Your task to perform on an android device: Open display settings Image 0: 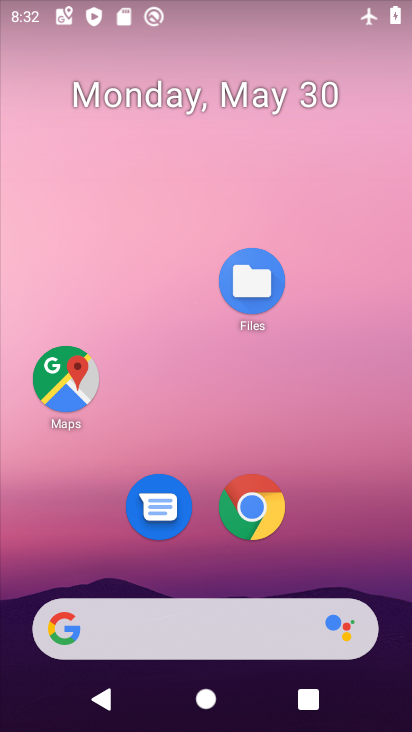
Step 0: drag from (201, 552) to (227, 174)
Your task to perform on an android device: Open display settings Image 1: 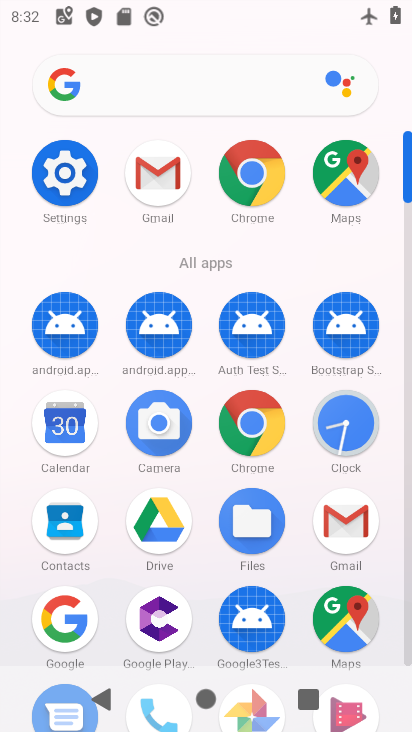
Step 1: click (81, 194)
Your task to perform on an android device: Open display settings Image 2: 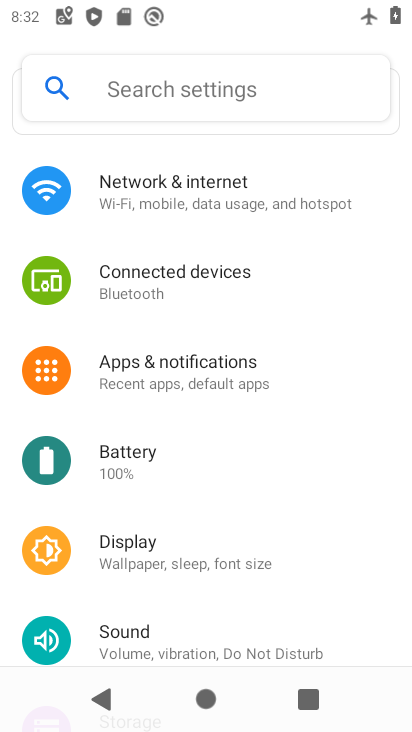
Step 2: click (156, 564)
Your task to perform on an android device: Open display settings Image 3: 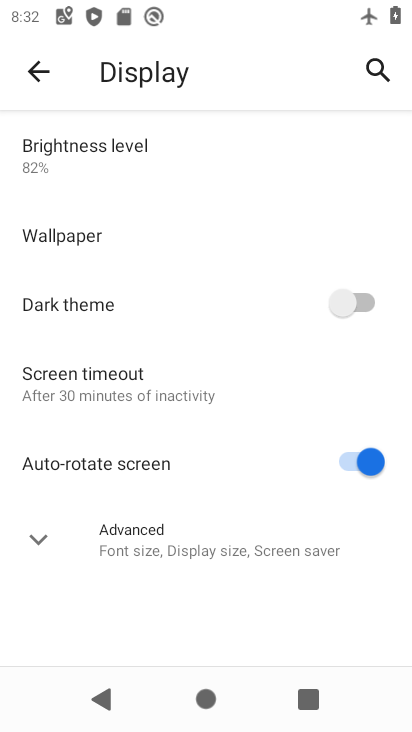
Step 3: task complete